Your task to perform on an android device: see tabs open on other devices in the chrome app Image 0: 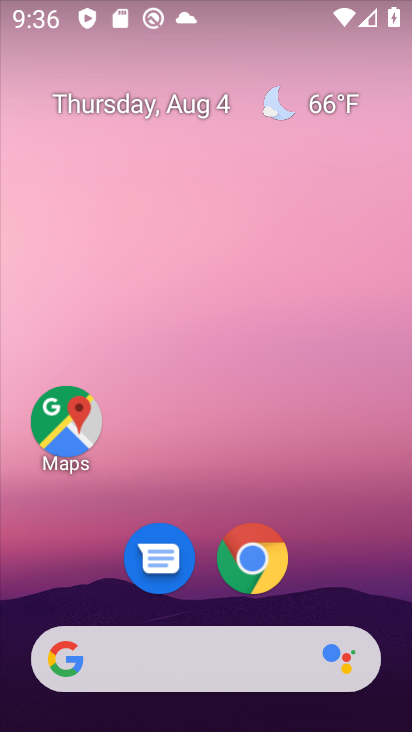
Step 0: drag from (340, 475) to (391, 80)
Your task to perform on an android device: see tabs open on other devices in the chrome app Image 1: 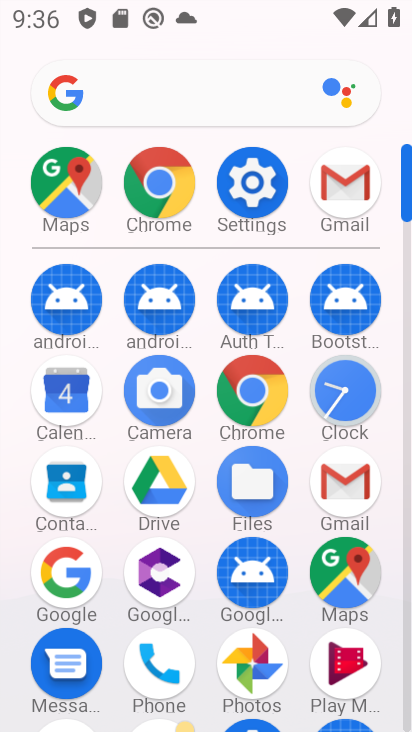
Step 1: click (254, 392)
Your task to perform on an android device: see tabs open on other devices in the chrome app Image 2: 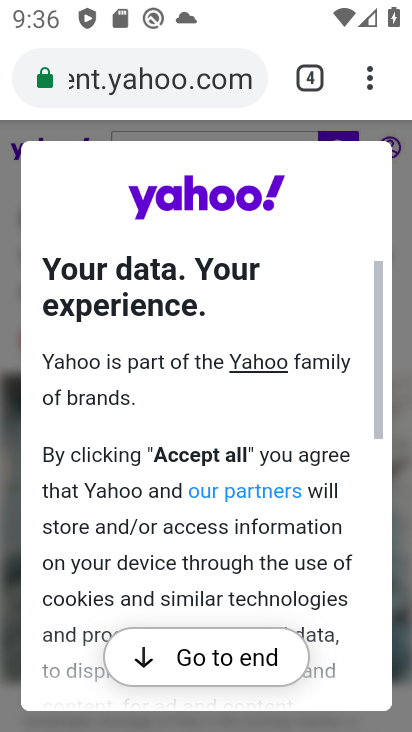
Step 2: task complete